Your task to perform on an android device: Go to Wikipedia Image 0: 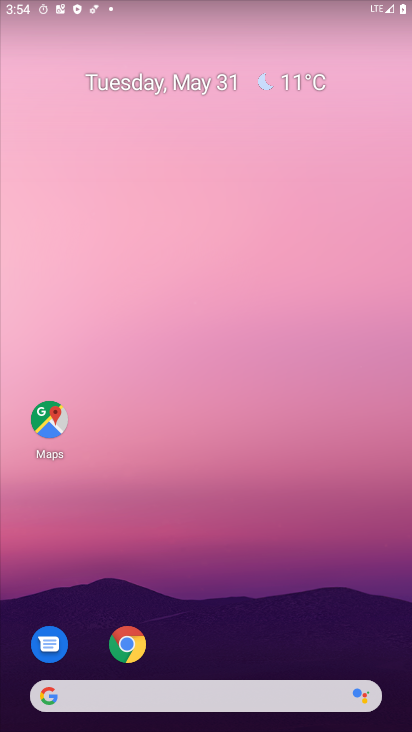
Step 0: click (135, 642)
Your task to perform on an android device: Go to Wikipedia Image 1: 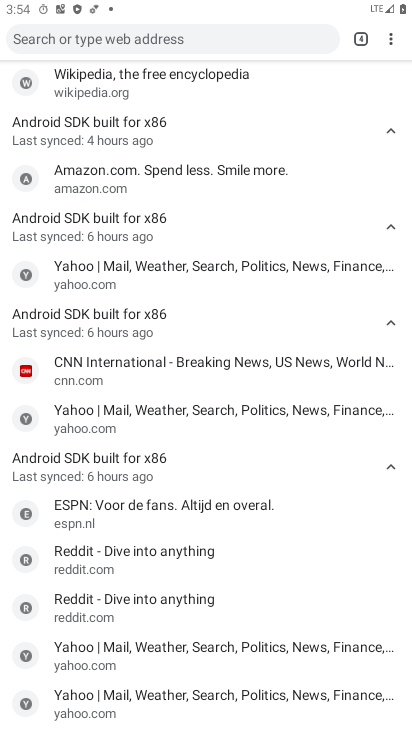
Step 1: click (358, 40)
Your task to perform on an android device: Go to Wikipedia Image 2: 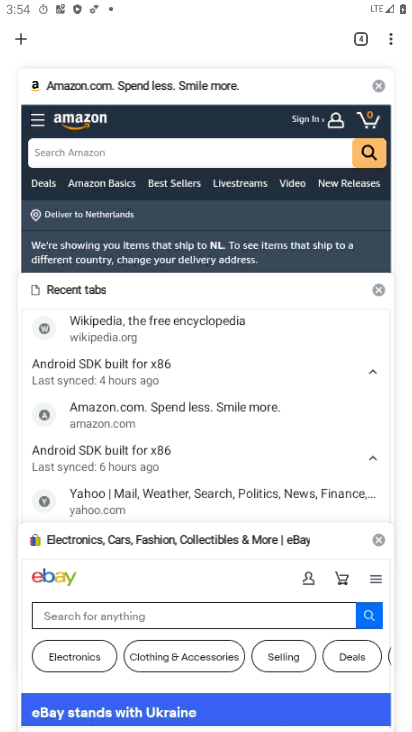
Step 2: click (24, 34)
Your task to perform on an android device: Go to Wikipedia Image 3: 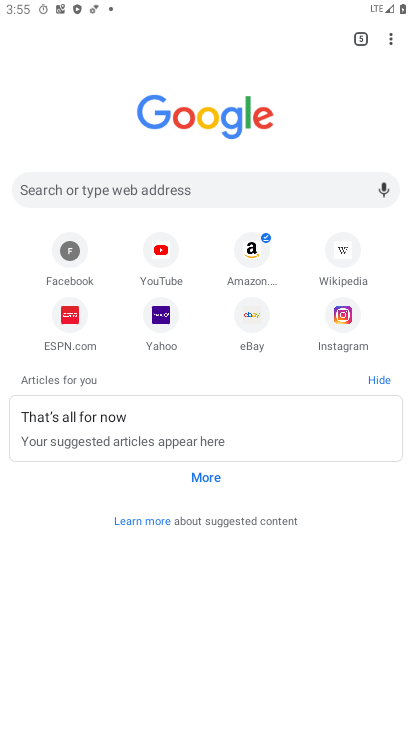
Step 3: click (347, 261)
Your task to perform on an android device: Go to Wikipedia Image 4: 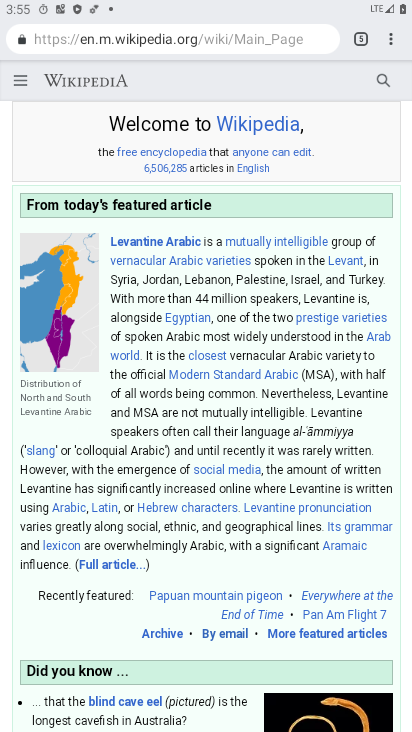
Step 4: task complete